Your task to perform on an android device: check the backup settings in the google photos Image 0: 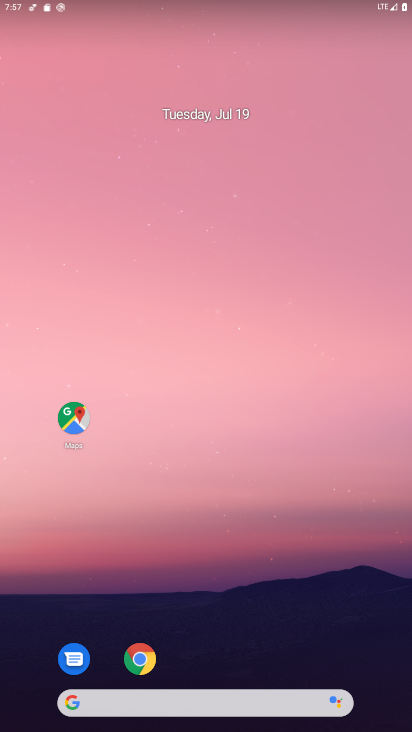
Step 0: click (375, 288)
Your task to perform on an android device: check the backup settings in the google photos Image 1: 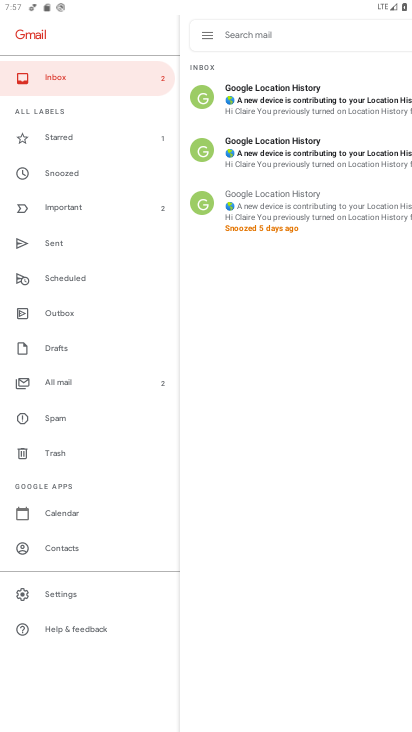
Step 1: press home button
Your task to perform on an android device: check the backup settings in the google photos Image 2: 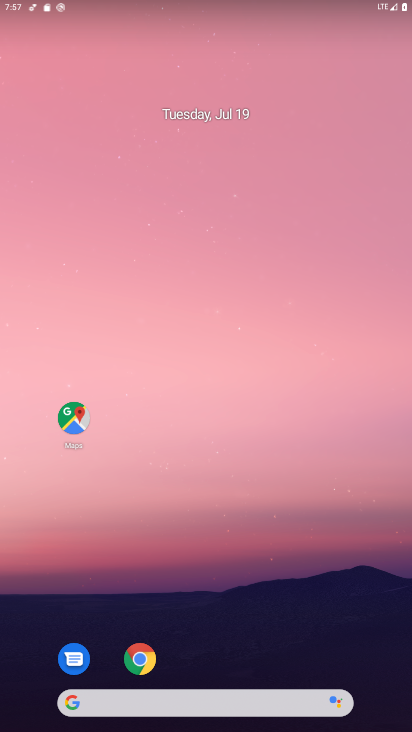
Step 2: drag from (206, 637) to (227, 34)
Your task to perform on an android device: check the backup settings in the google photos Image 3: 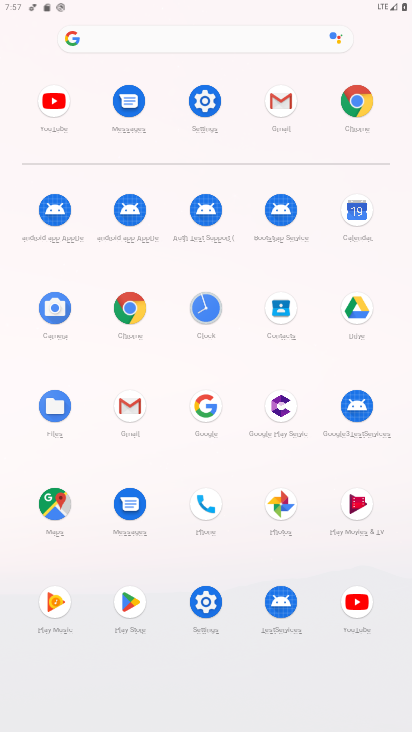
Step 3: click (280, 505)
Your task to perform on an android device: check the backup settings in the google photos Image 4: 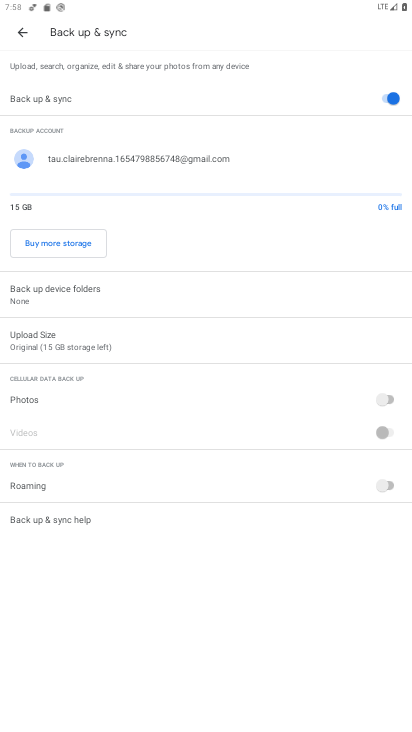
Step 4: task complete